Your task to perform on an android device: visit the assistant section in the google photos Image 0: 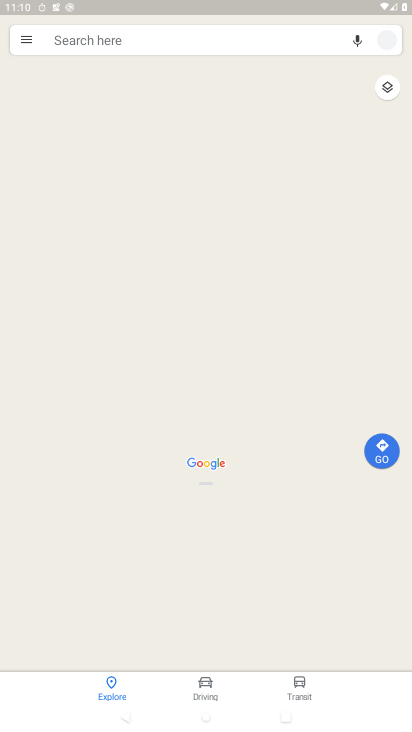
Step 0: press home button
Your task to perform on an android device: visit the assistant section in the google photos Image 1: 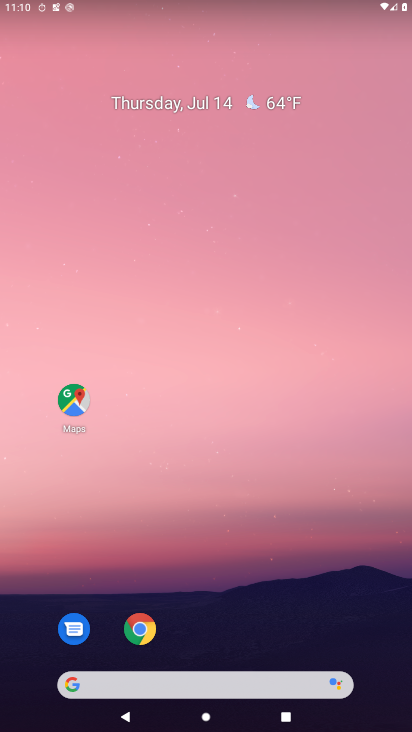
Step 1: drag from (174, 689) to (179, 308)
Your task to perform on an android device: visit the assistant section in the google photos Image 2: 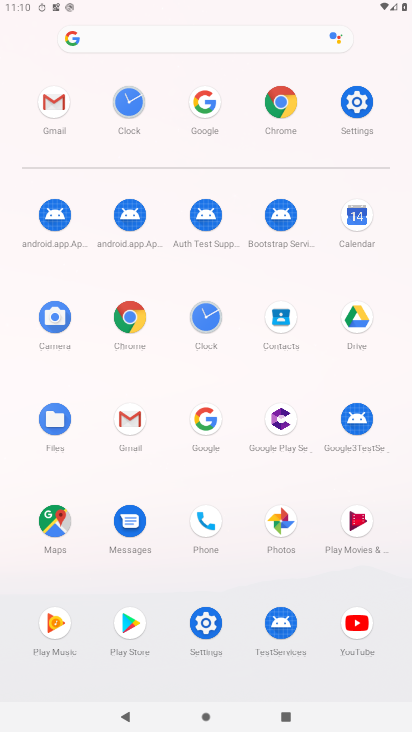
Step 2: click (278, 516)
Your task to perform on an android device: visit the assistant section in the google photos Image 3: 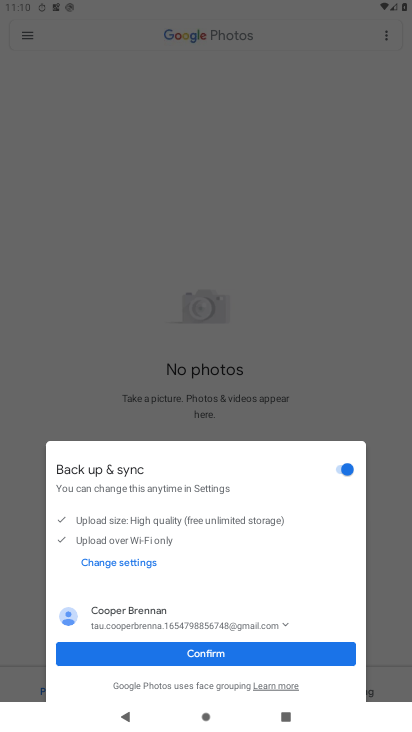
Step 3: click (230, 658)
Your task to perform on an android device: visit the assistant section in the google photos Image 4: 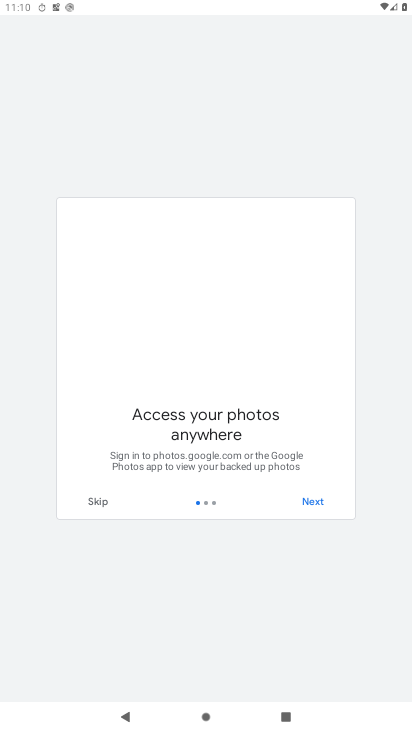
Step 4: click (300, 497)
Your task to perform on an android device: visit the assistant section in the google photos Image 5: 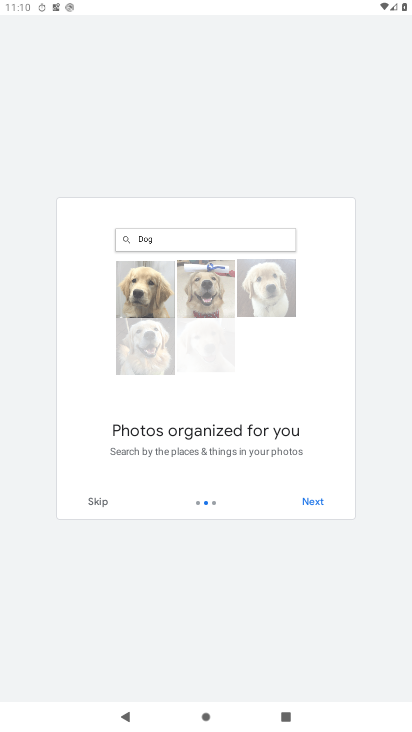
Step 5: click (300, 497)
Your task to perform on an android device: visit the assistant section in the google photos Image 6: 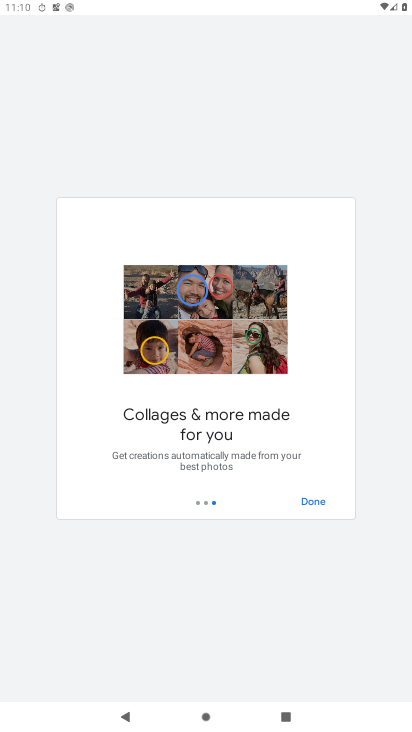
Step 6: click (300, 497)
Your task to perform on an android device: visit the assistant section in the google photos Image 7: 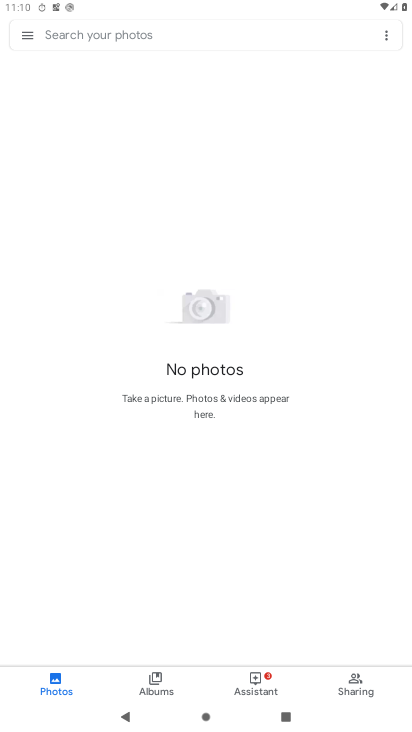
Step 7: click (269, 680)
Your task to perform on an android device: visit the assistant section in the google photos Image 8: 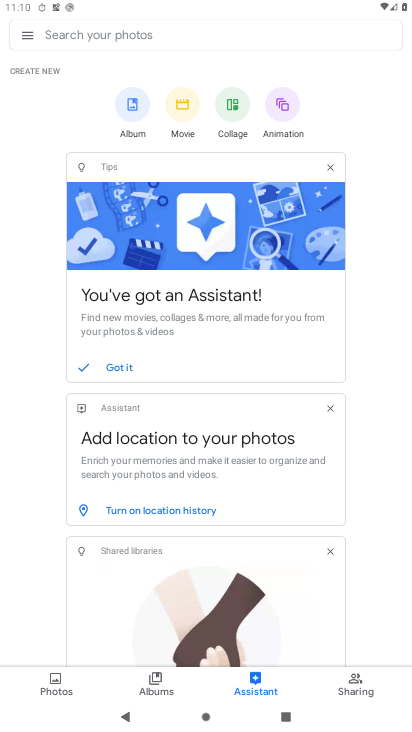
Step 8: task complete